Your task to perform on an android device: turn off improve location accuracy Image 0: 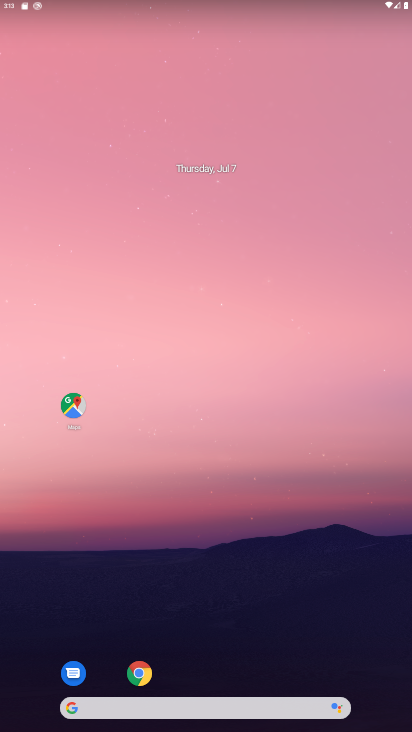
Step 0: press home button
Your task to perform on an android device: turn off improve location accuracy Image 1: 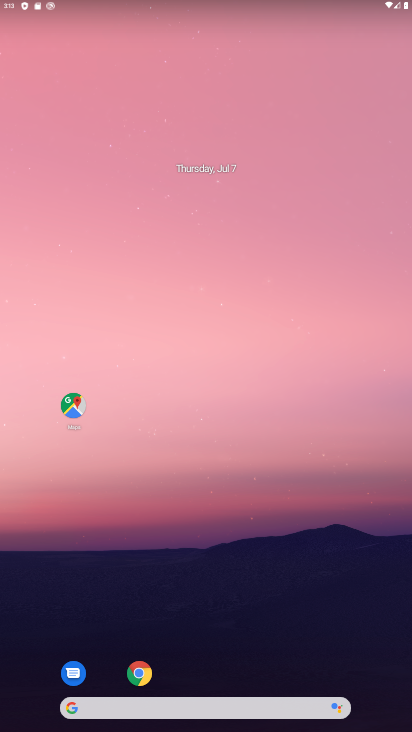
Step 1: click (163, 229)
Your task to perform on an android device: turn off improve location accuracy Image 2: 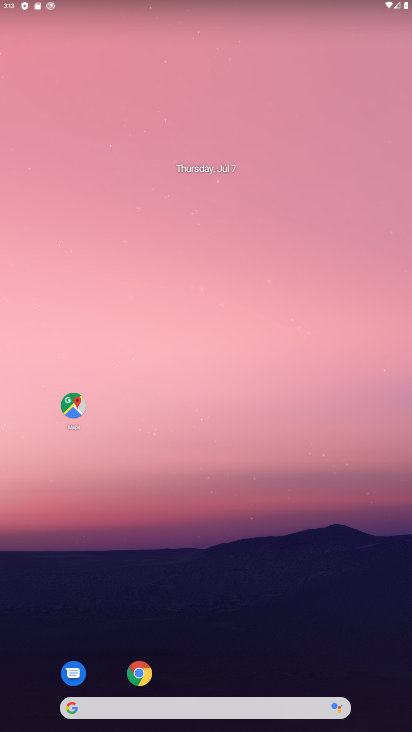
Step 2: drag from (269, 145) to (306, 6)
Your task to perform on an android device: turn off improve location accuracy Image 3: 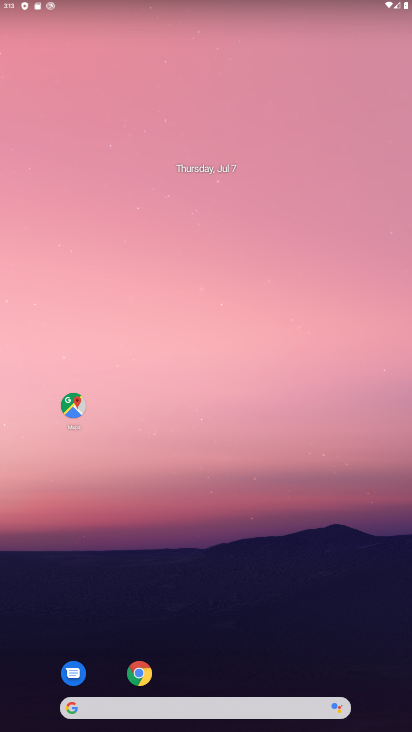
Step 3: drag from (340, 455) to (290, 104)
Your task to perform on an android device: turn off improve location accuracy Image 4: 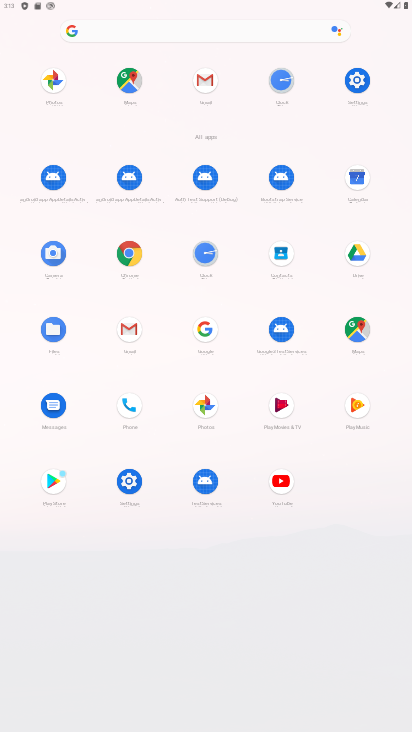
Step 4: click (354, 81)
Your task to perform on an android device: turn off improve location accuracy Image 5: 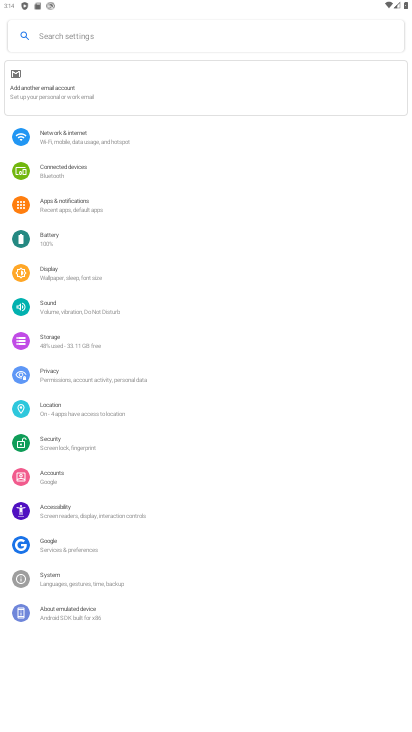
Step 5: click (75, 409)
Your task to perform on an android device: turn off improve location accuracy Image 6: 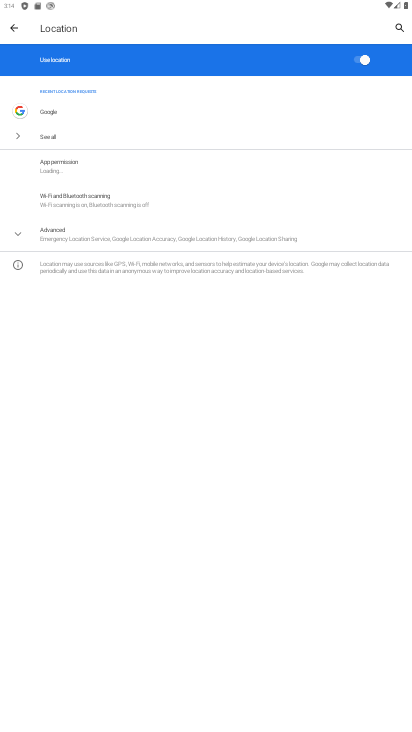
Step 6: click (41, 235)
Your task to perform on an android device: turn off improve location accuracy Image 7: 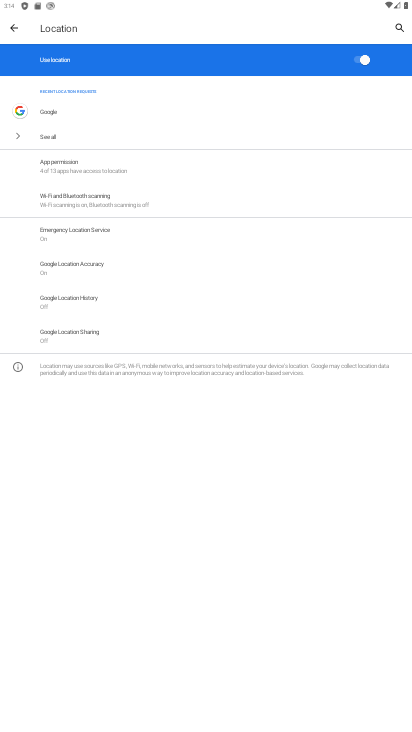
Step 7: click (65, 262)
Your task to perform on an android device: turn off improve location accuracy Image 8: 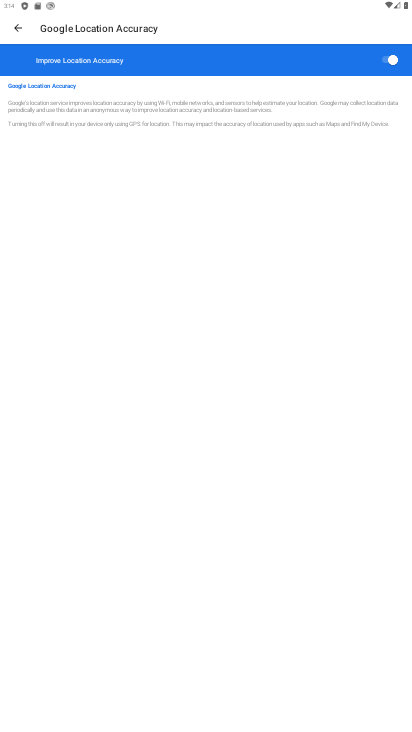
Step 8: click (382, 61)
Your task to perform on an android device: turn off improve location accuracy Image 9: 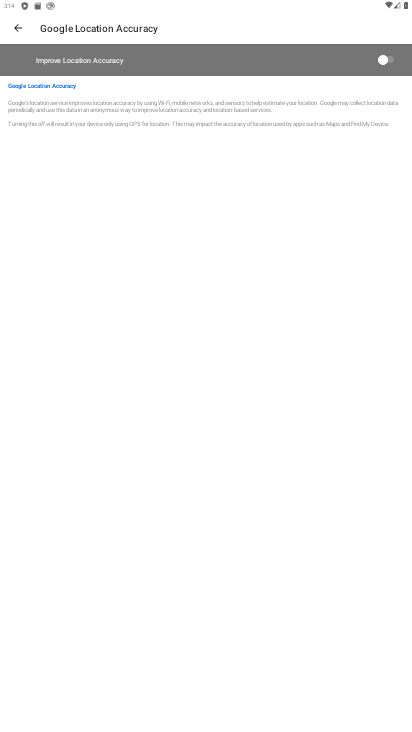
Step 9: task complete